Your task to perform on an android device: stop showing notifications on the lock screen Image 0: 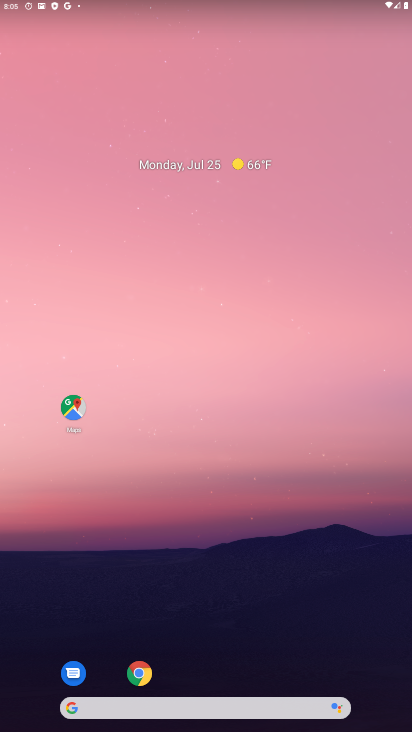
Step 0: drag from (185, 659) to (210, 229)
Your task to perform on an android device: stop showing notifications on the lock screen Image 1: 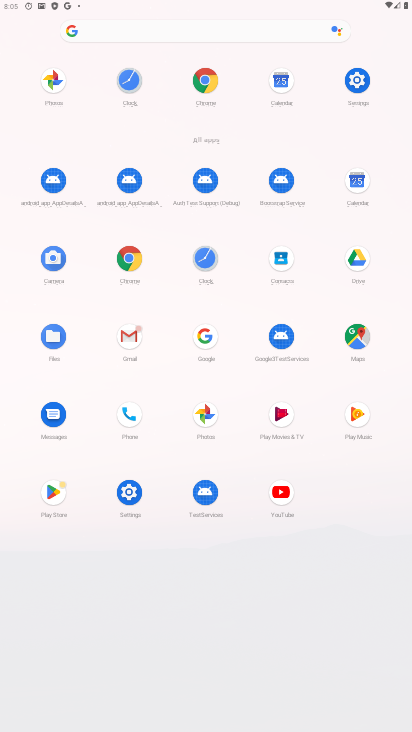
Step 1: click (118, 494)
Your task to perform on an android device: stop showing notifications on the lock screen Image 2: 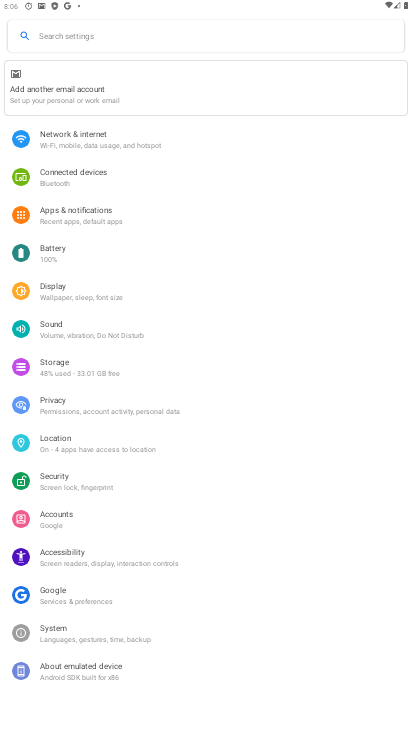
Step 2: click (108, 219)
Your task to perform on an android device: stop showing notifications on the lock screen Image 3: 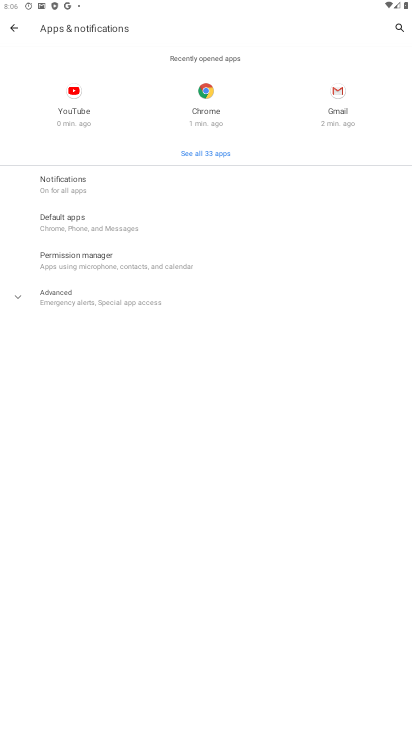
Step 3: click (105, 187)
Your task to perform on an android device: stop showing notifications on the lock screen Image 4: 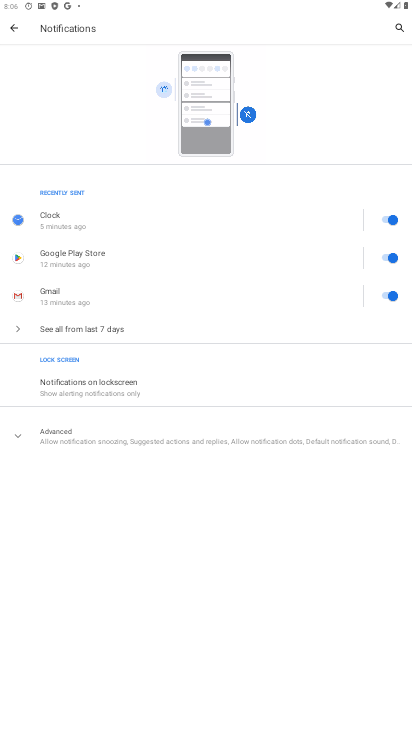
Step 4: click (86, 378)
Your task to perform on an android device: stop showing notifications on the lock screen Image 5: 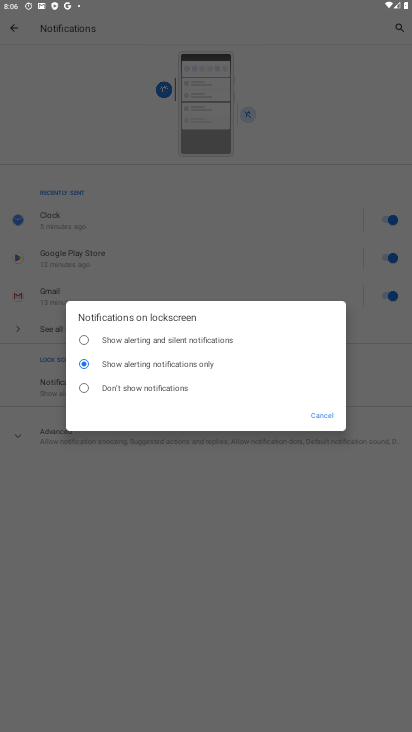
Step 5: click (106, 383)
Your task to perform on an android device: stop showing notifications on the lock screen Image 6: 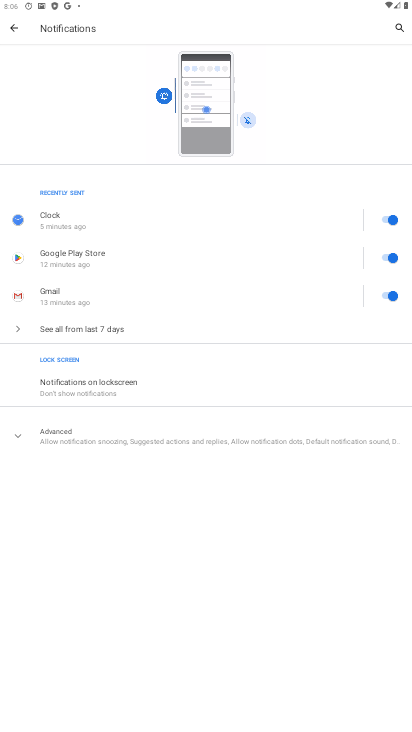
Step 6: task complete